Your task to perform on an android device: turn off javascript in the chrome app Image 0: 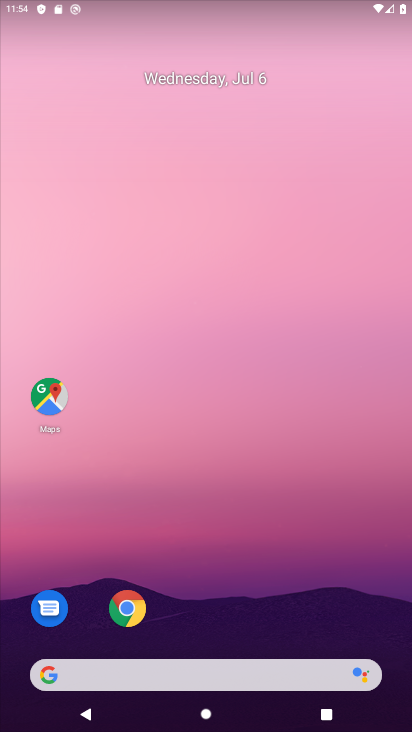
Step 0: drag from (195, 641) to (268, 17)
Your task to perform on an android device: turn off javascript in the chrome app Image 1: 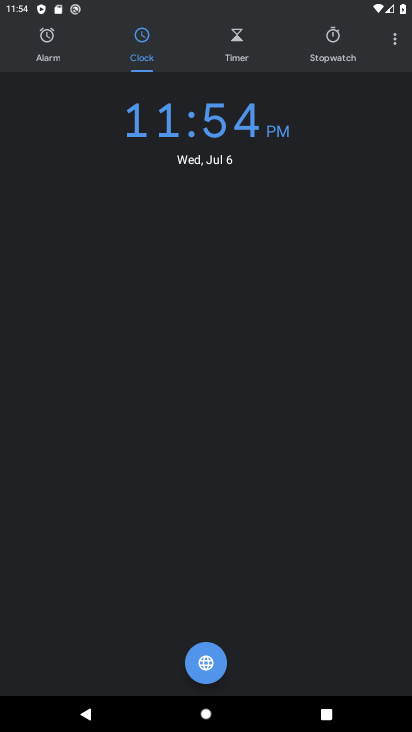
Step 1: press home button
Your task to perform on an android device: turn off javascript in the chrome app Image 2: 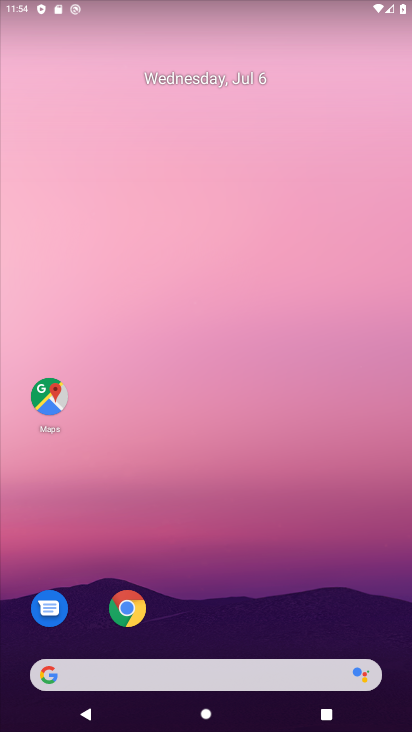
Step 2: click (128, 597)
Your task to perform on an android device: turn off javascript in the chrome app Image 3: 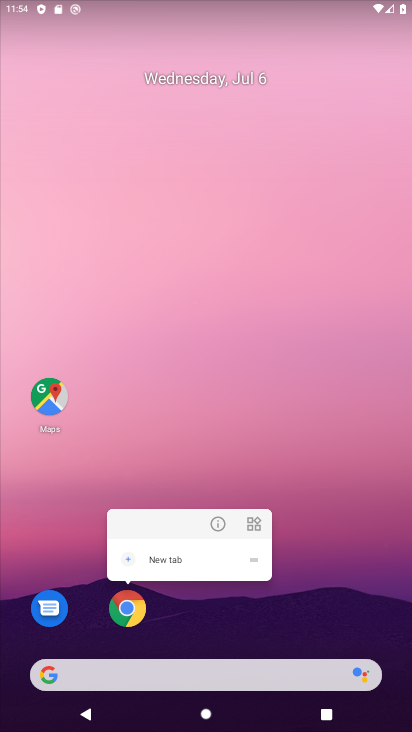
Step 3: click (125, 605)
Your task to perform on an android device: turn off javascript in the chrome app Image 4: 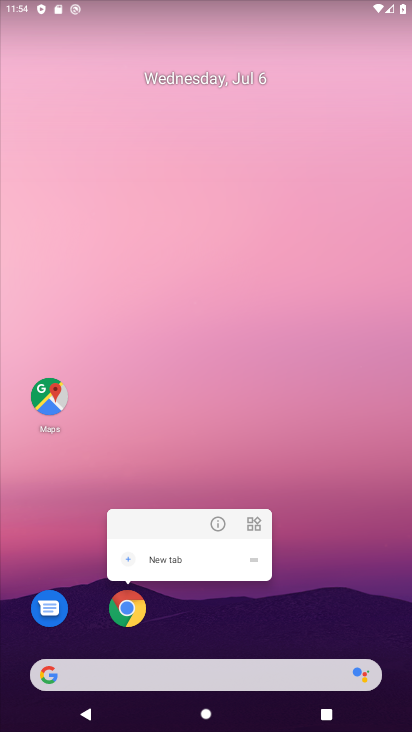
Step 4: click (125, 606)
Your task to perform on an android device: turn off javascript in the chrome app Image 5: 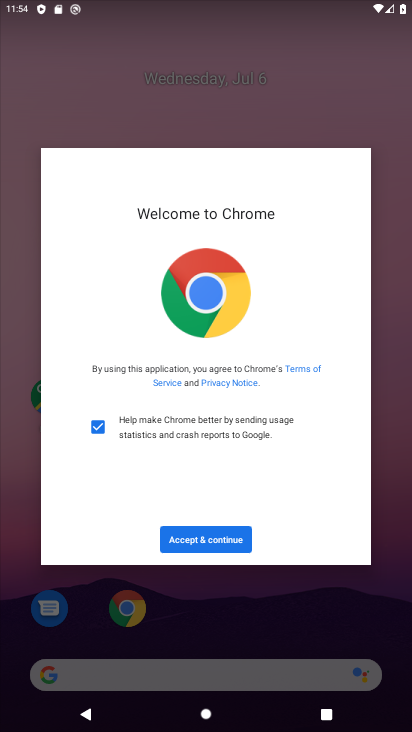
Step 5: click (238, 535)
Your task to perform on an android device: turn off javascript in the chrome app Image 6: 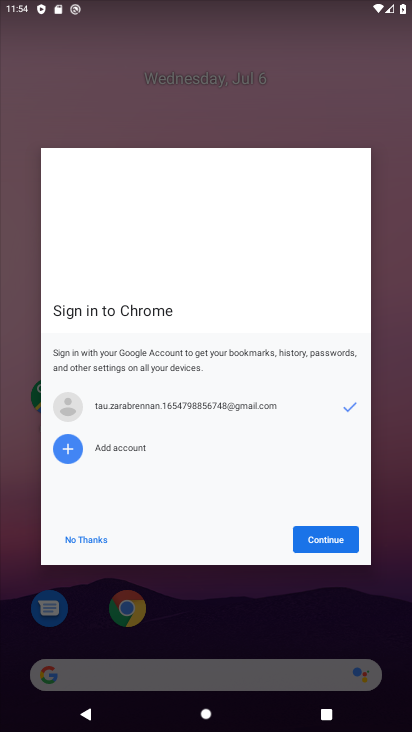
Step 6: click (238, 531)
Your task to perform on an android device: turn off javascript in the chrome app Image 7: 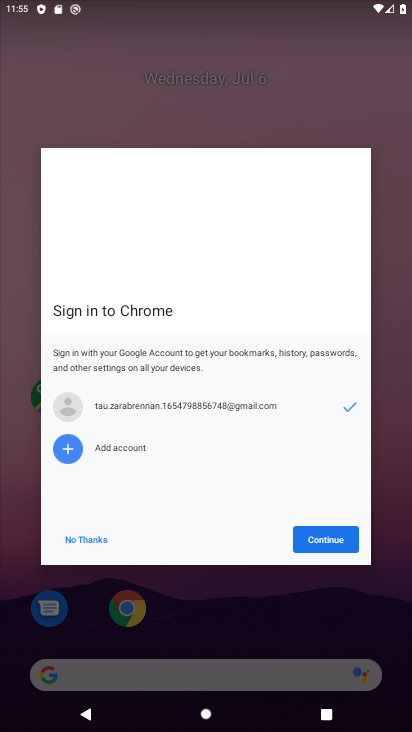
Step 7: click (337, 532)
Your task to perform on an android device: turn off javascript in the chrome app Image 8: 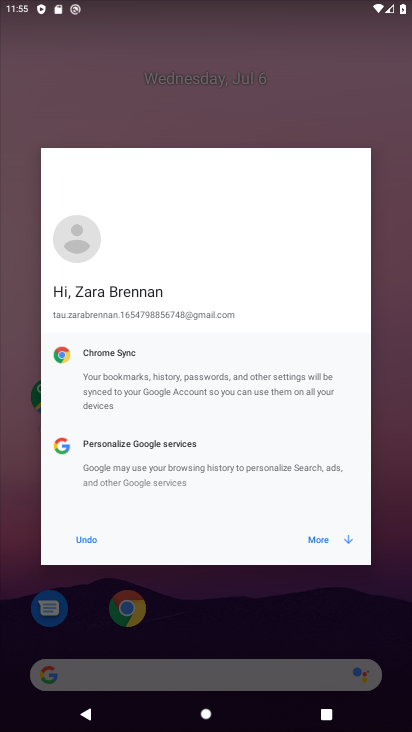
Step 8: click (336, 546)
Your task to perform on an android device: turn off javascript in the chrome app Image 9: 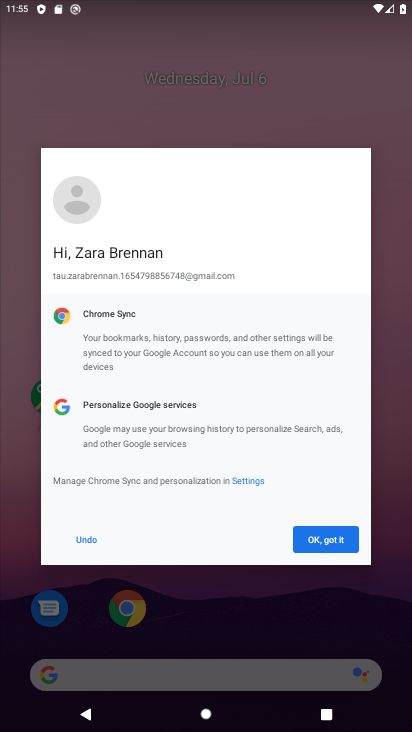
Step 9: click (336, 546)
Your task to perform on an android device: turn off javascript in the chrome app Image 10: 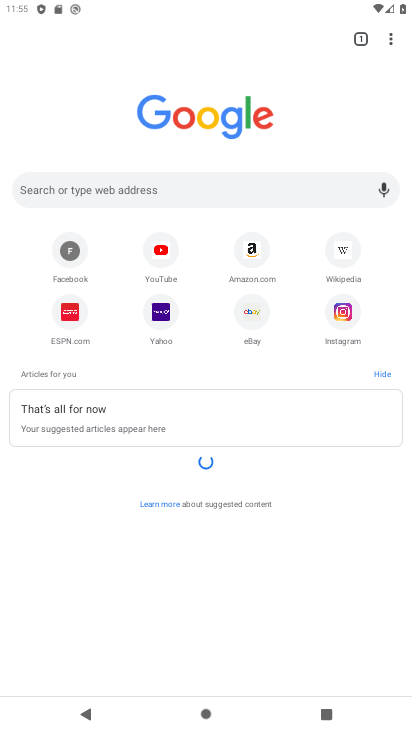
Step 10: drag from (388, 39) to (268, 317)
Your task to perform on an android device: turn off javascript in the chrome app Image 11: 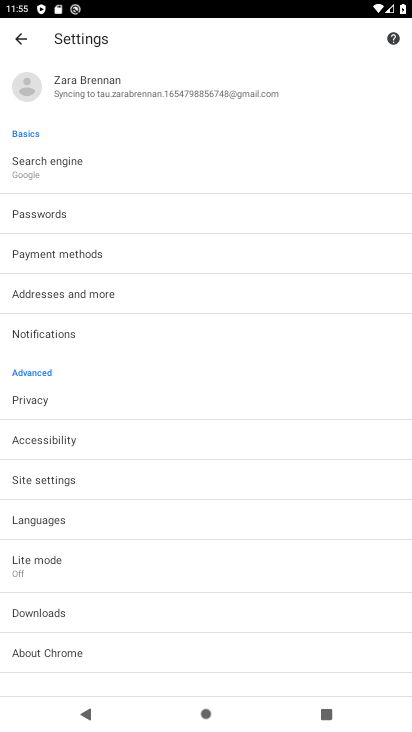
Step 11: click (81, 485)
Your task to perform on an android device: turn off javascript in the chrome app Image 12: 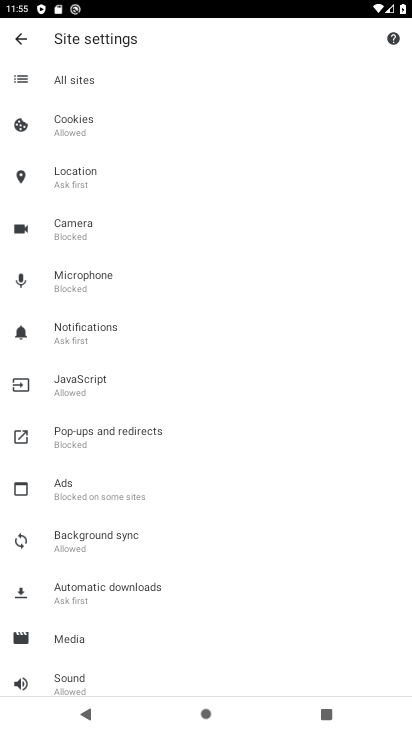
Step 12: click (117, 383)
Your task to perform on an android device: turn off javascript in the chrome app Image 13: 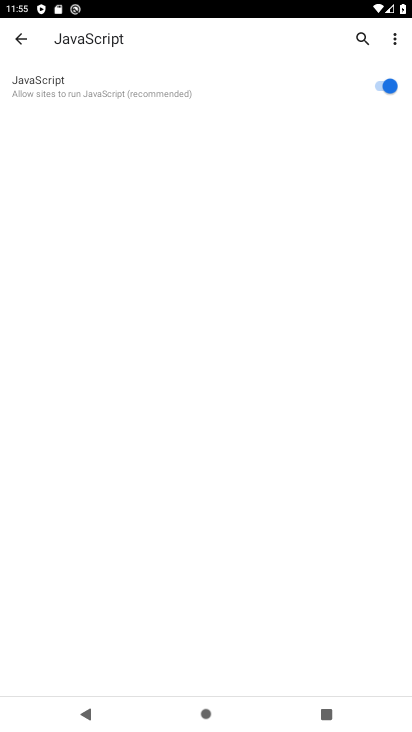
Step 13: click (379, 93)
Your task to perform on an android device: turn off javascript in the chrome app Image 14: 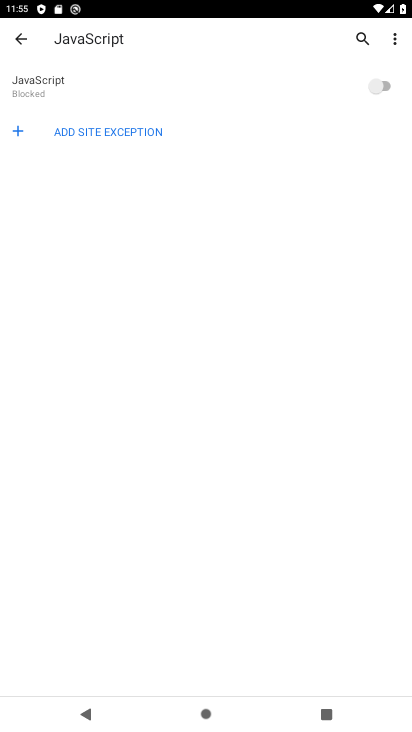
Step 14: task complete